Your task to perform on an android device: Go to location settings Image 0: 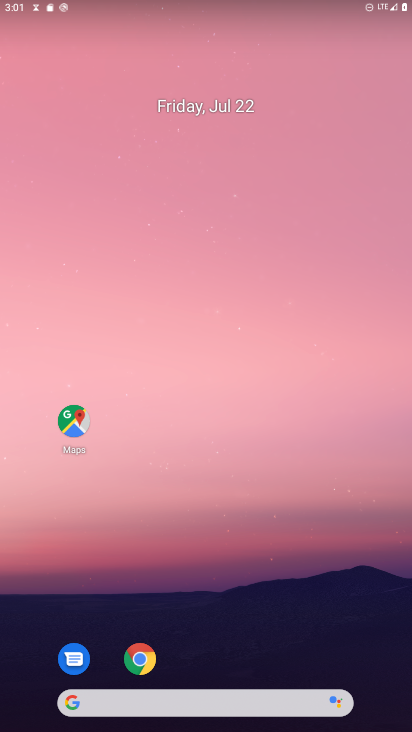
Step 0: drag from (242, 588) to (304, 141)
Your task to perform on an android device: Go to location settings Image 1: 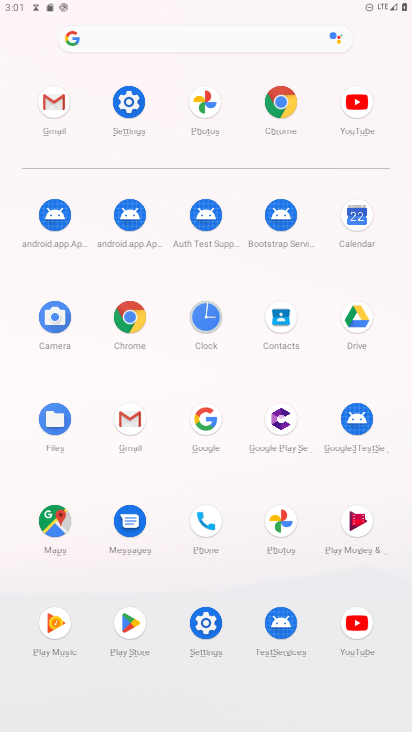
Step 1: click (121, 112)
Your task to perform on an android device: Go to location settings Image 2: 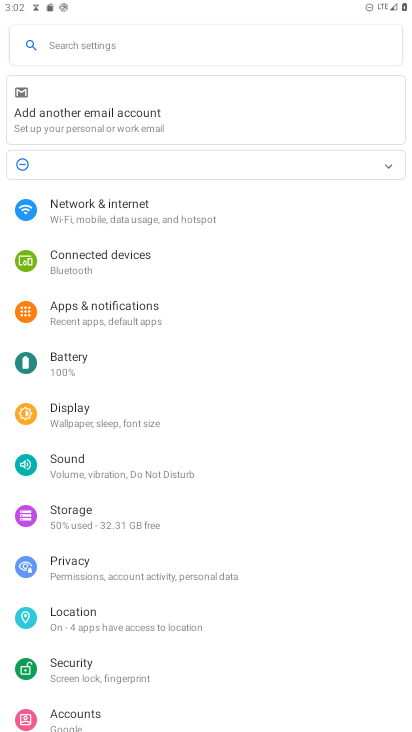
Step 2: click (134, 620)
Your task to perform on an android device: Go to location settings Image 3: 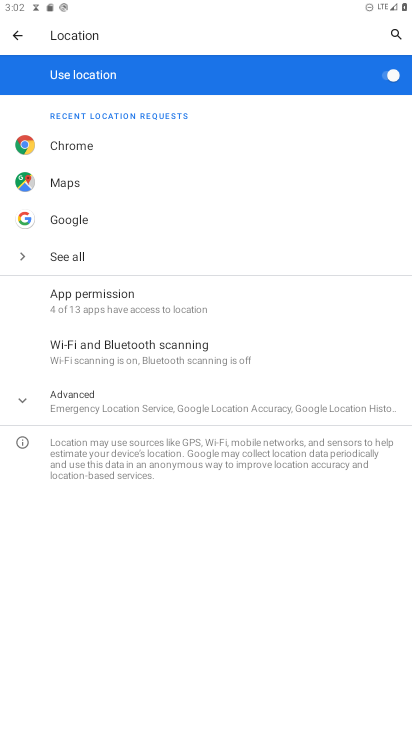
Step 3: task complete